Your task to perform on an android device: set an alarm Image 0: 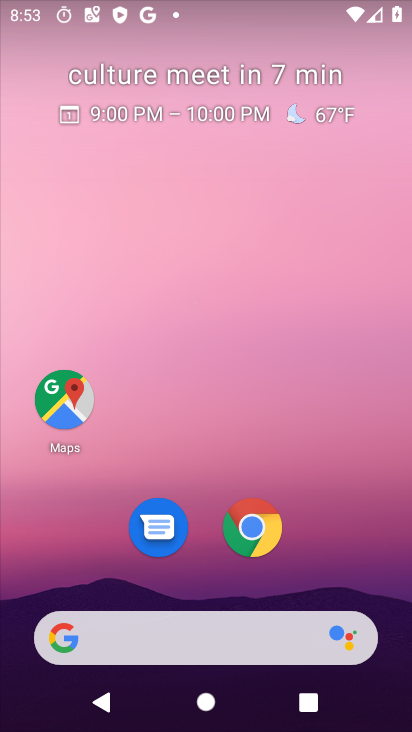
Step 0: drag from (219, 729) to (265, 152)
Your task to perform on an android device: set an alarm Image 1: 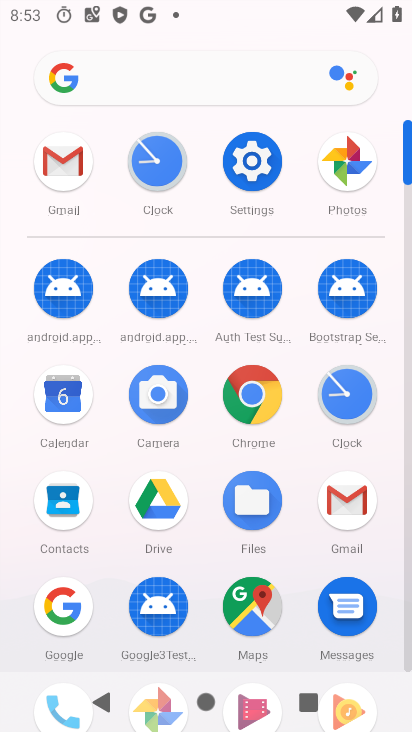
Step 1: click (348, 386)
Your task to perform on an android device: set an alarm Image 2: 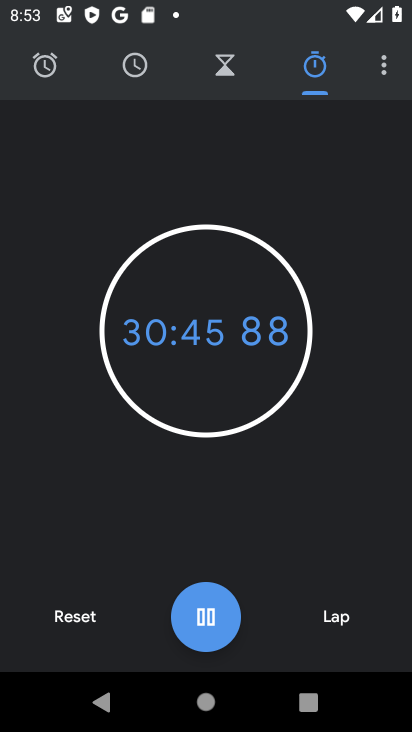
Step 2: click (47, 67)
Your task to perform on an android device: set an alarm Image 3: 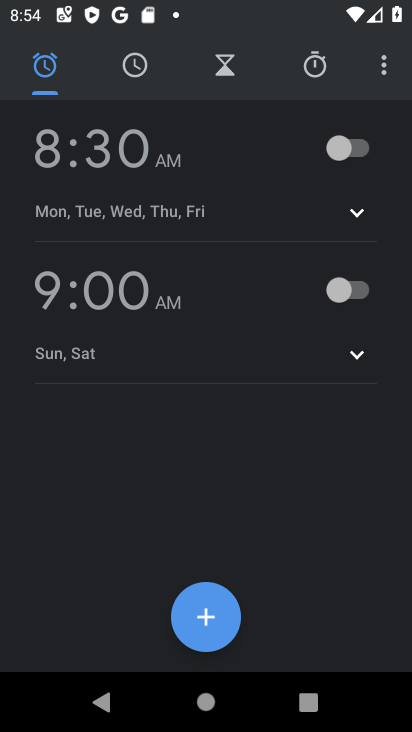
Step 3: click (211, 610)
Your task to perform on an android device: set an alarm Image 4: 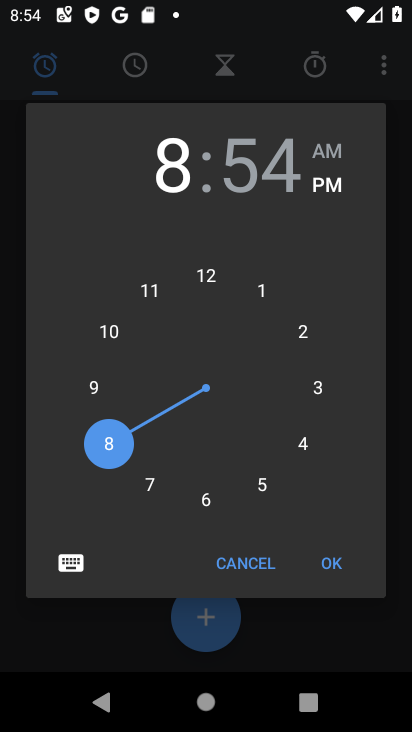
Step 4: click (265, 481)
Your task to perform on an android device: set an alarm Image 5: 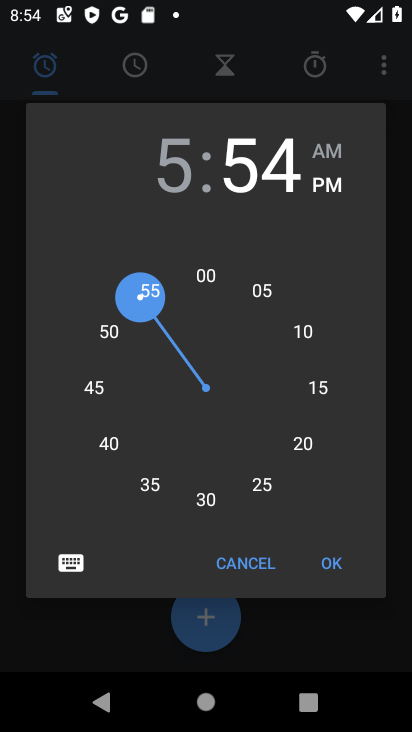
Step 5: click (334, 560)
Your task to perform on an android device: set an alarm Image 6: 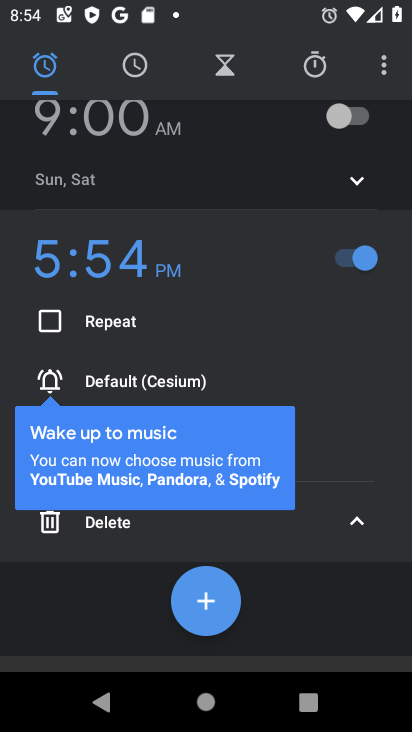
Step 6: task complete